Your task to perform on an android device: open a bookmark in the chrome app Image 0: 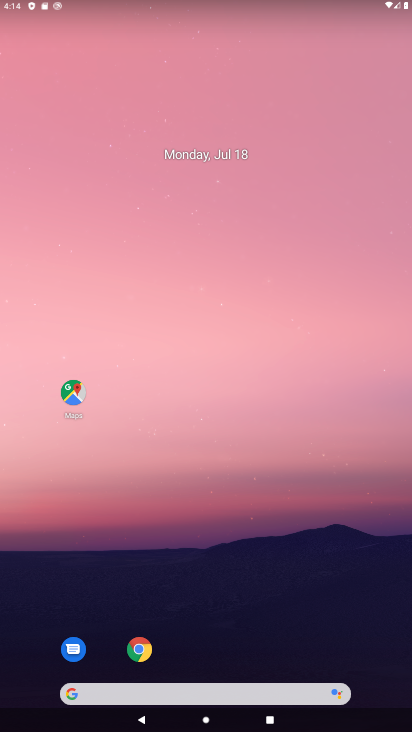
Step 0: click (153, 642)
Your task to perform on an android device: open a bookmark in the chrome app Image 1: 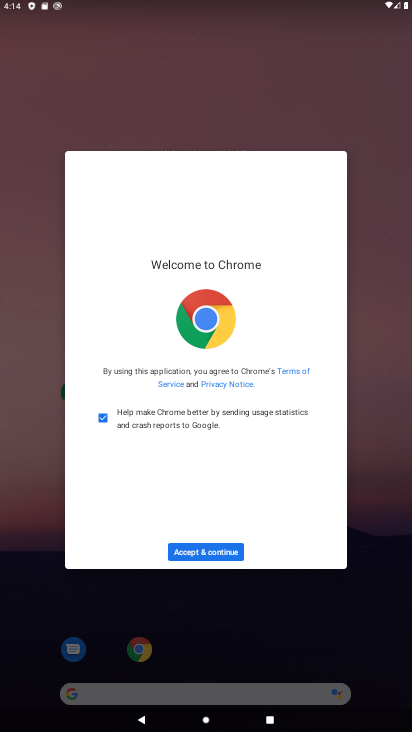
Step 1: click (216, 554)
Your task to perform on an android device: open a bookmark in the chrome app Image 2: 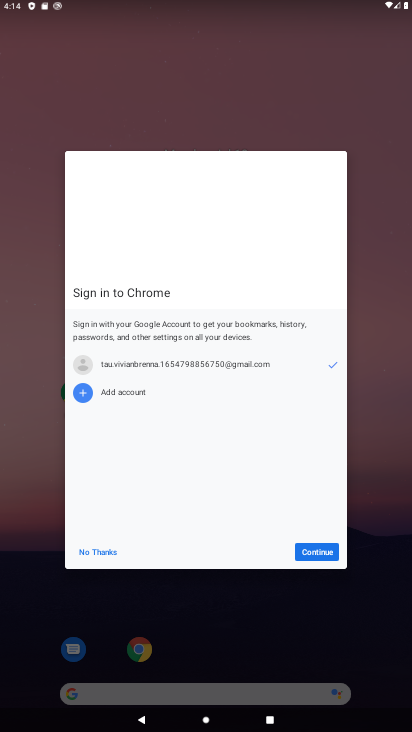
Step 2: click (306, 547)
Your task to perform on an android device: open a bookmark in the chrome app Image 3: 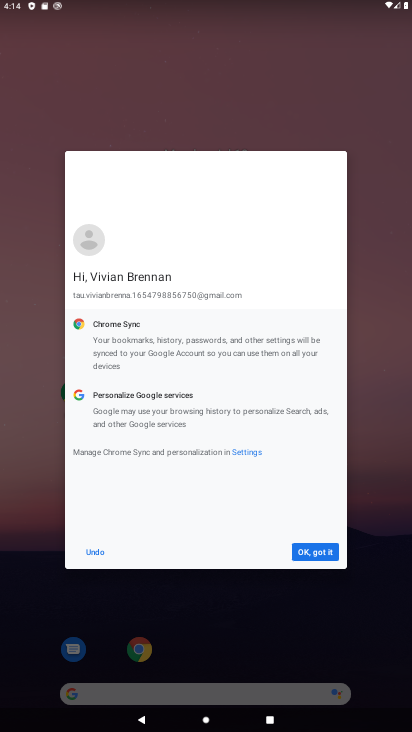
Step 3: click (307, 547)
Your task to perform on an android device: open a bookmark in the chrome app Image 4: 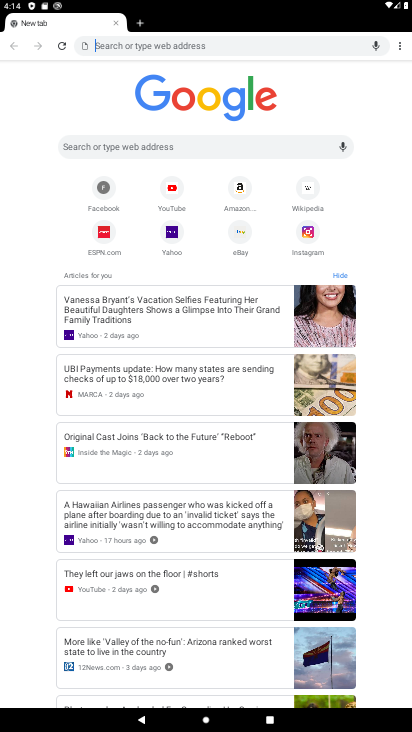
Step 4: click (401, 43)
Your task to perform on an android device: open a bookmark in the chrome app Image 5: 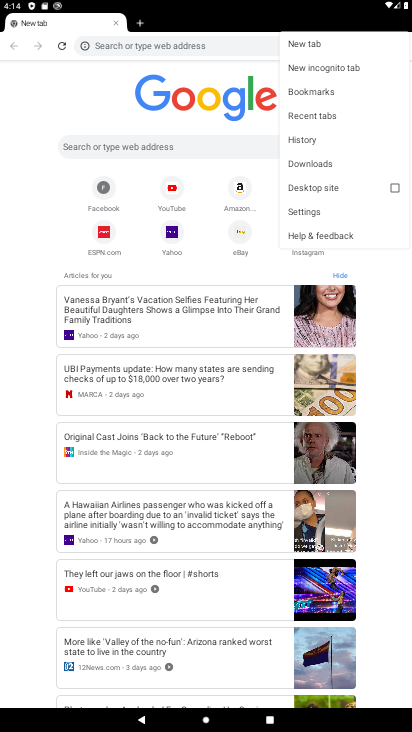
Step 5: click (318, 91)
Your task to perform on an android device: open a bookmark in the chrome app Image 6: 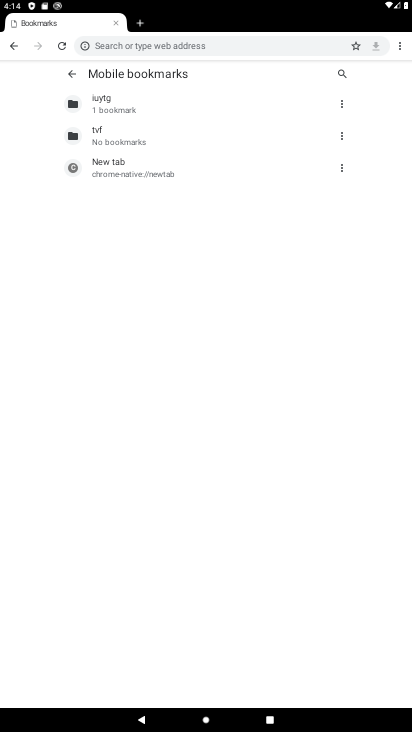
Step 6: click (102, 134)
Your task to perform on an android device: open a bookmark in the chrome app Image 7: 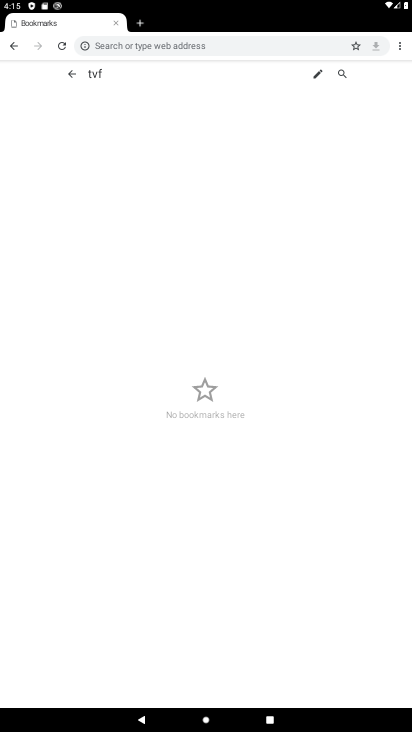
Step 7: click (16, 47)
Your task to perform on an android device: open a bookmark in the chrome app Image 8: 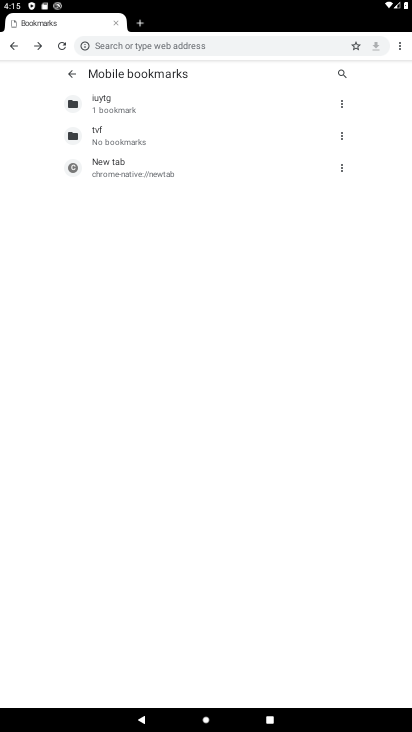
Step 8: click (141, 171)
Your task to perform on an android device: open a bookmark in the chrome app Image 9: 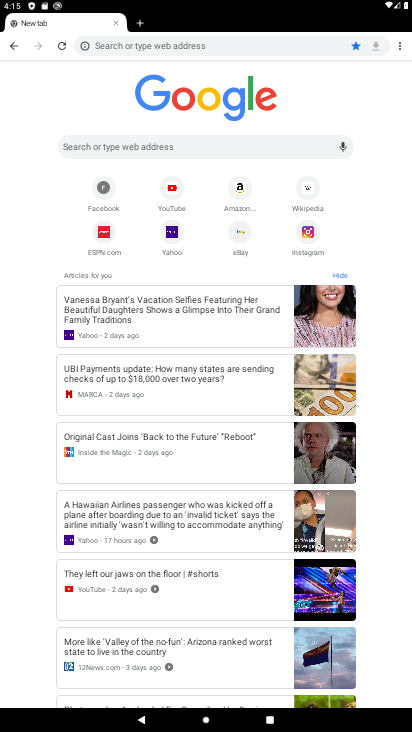
Step 9: task complete